Your task to perform on an android device: Open Youtube and go to "Your channel" Image 0: 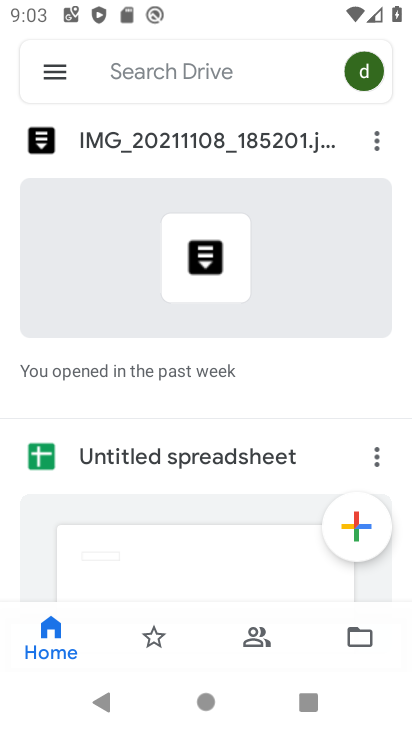
Step 0: press home button
Your task to perform on an android device: Open Youtube and go to "Your channel" Image 1: 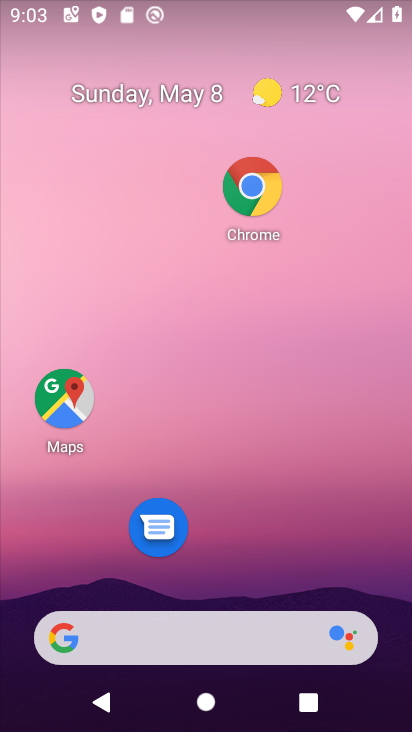
Step 1: drag from (249, 539) to (293, 229)
Your task to perform on an android device: Open Youtube and go to "Your channel" Image 2: 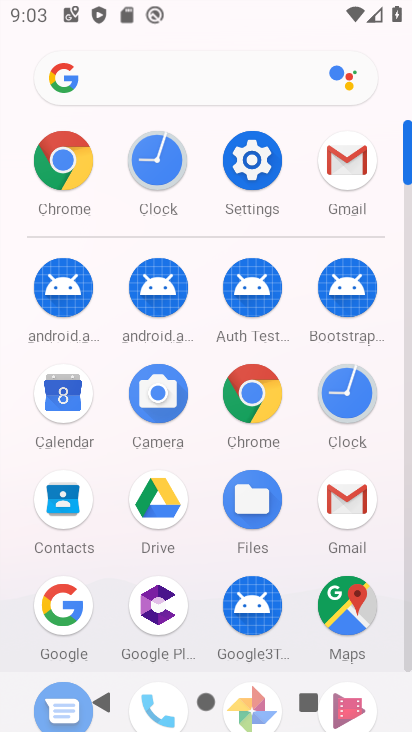
Step 2: drag from (245, 470) to (286, 162)
Your task to perform on an android device: Open Youtube and go to "Your channel" Image 3: 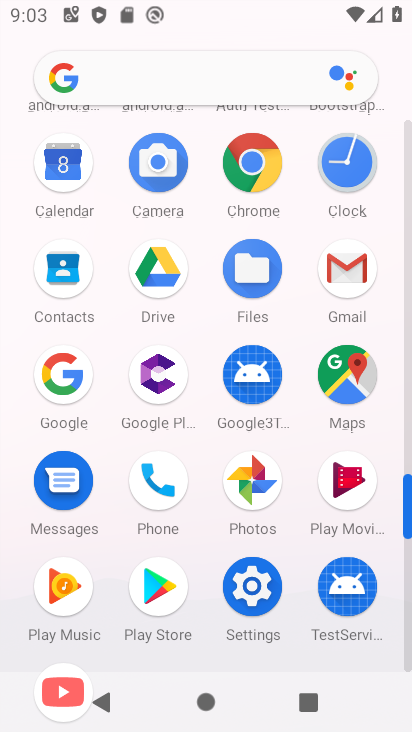
Step 3: drag from (134, 605) to (180, 227)
Your task to perform on an android device: Open Youtube and go to "Your channel" Image 4: 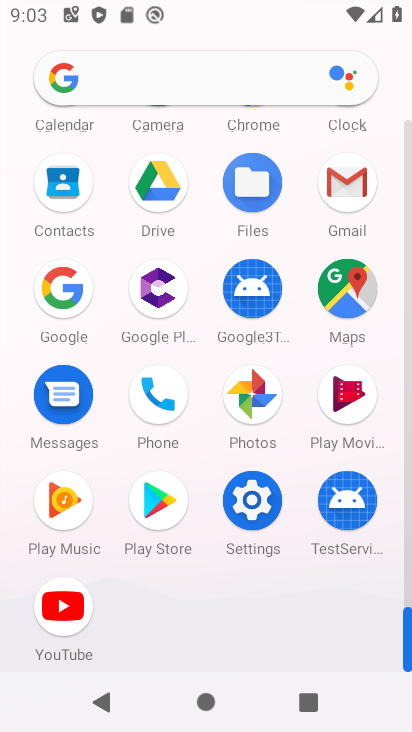
Step 4: click (55, 595)
Your task to perform on an android device: Open Youtube and go to "Your channel" Image 5: 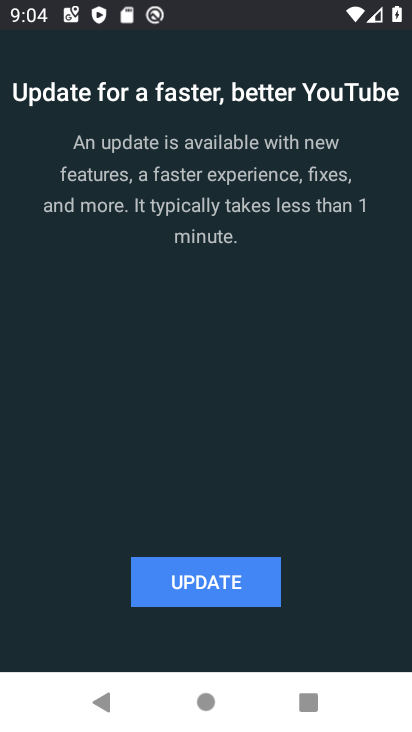
Step 5: task complete